Your task to perform on an android device: Open the calendar app, open the side menu, and click the "Day" option Image 0: 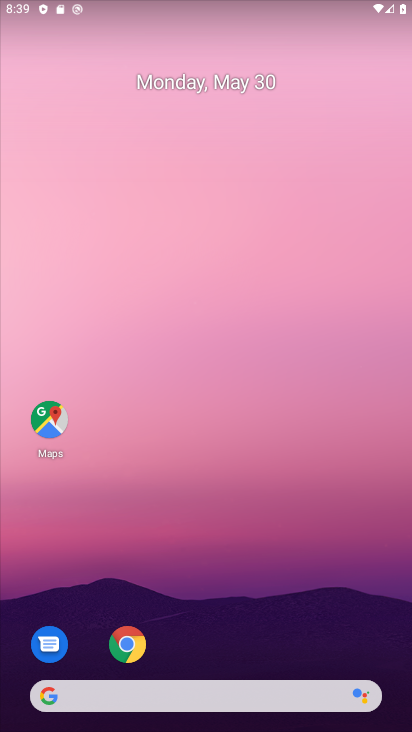
Step 0: drag from (180, 636) to (247, 190)
Your task to perform on an android device: Open the calendar app, open the side menu, and click the "Day" option Image 1: 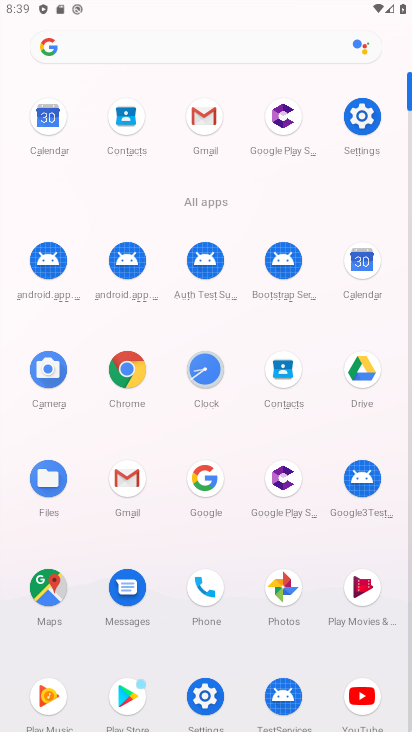
Step 1: click (388, 234)
Your task to perform on an android device: Open the calendar app, open the side menu, and click the "Day" option Image 2: 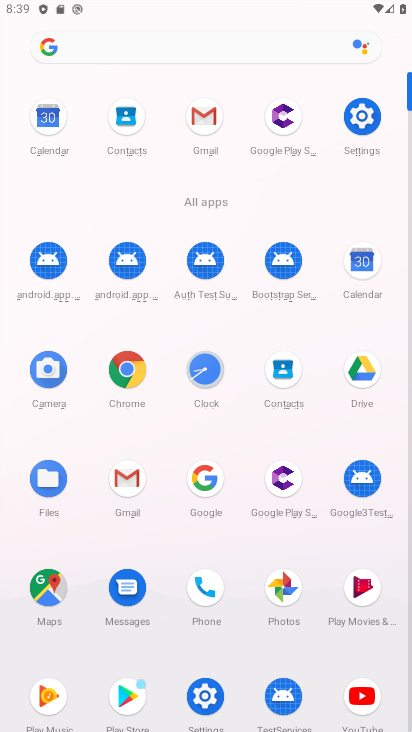
Step 2: click (378, 257)
Your task to perform on an android device: Open the calendar app, open the side menu, and click the "Day" option Image 3: 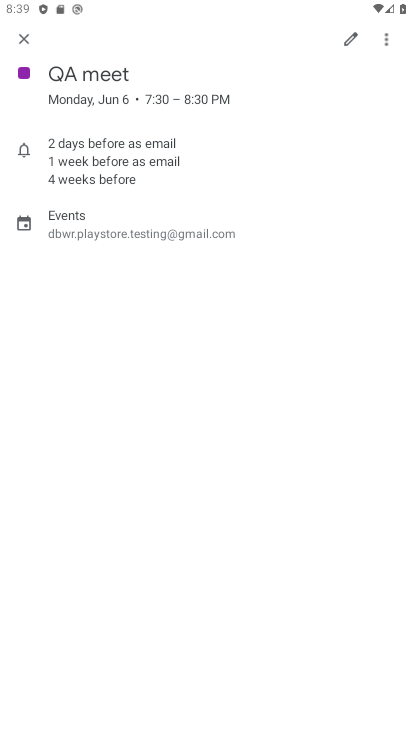
Step 3: click (26, 35)
Your task to perform on an android device: Open the calendar app, open the side menu, and click the "Day" option Image 4: 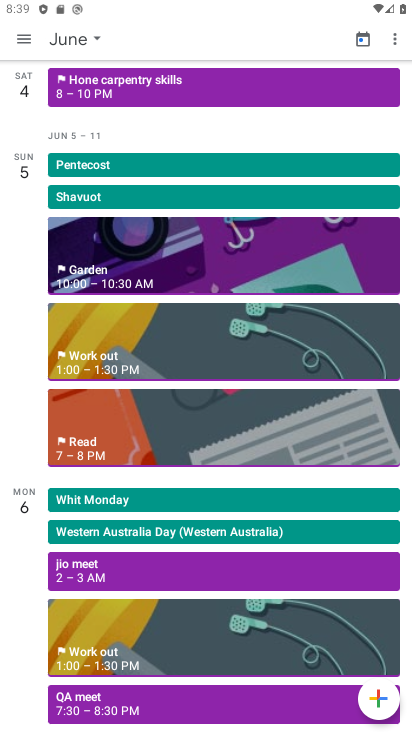
Step 4: click (18, 32)
Your task to perform on an android device: Open the calendar app, open the side menu, and click the "Day" option Image 5: 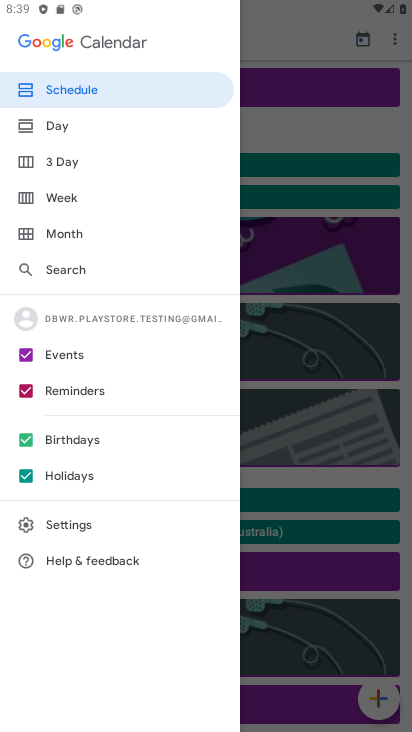
Step 5: click (59, 117)
Your task to perform on an android device: Open the calendar app, open the side menu, and click the "Day" option Image 6: 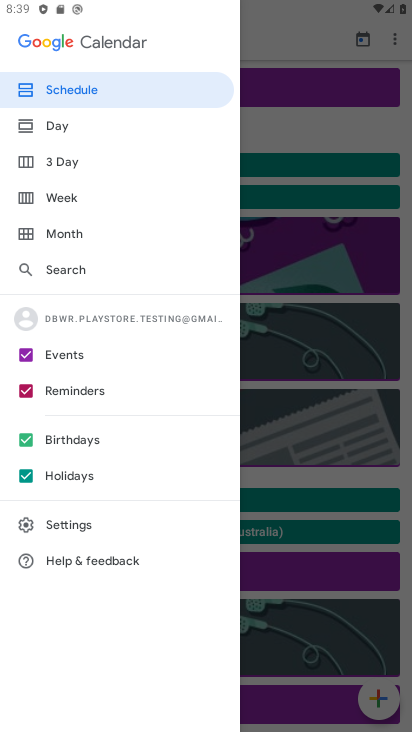
Step 6: click (63, 123)
Your task to perform on an android device: Open the calendar app, open the side menu, and click the "Day" option Image 7: 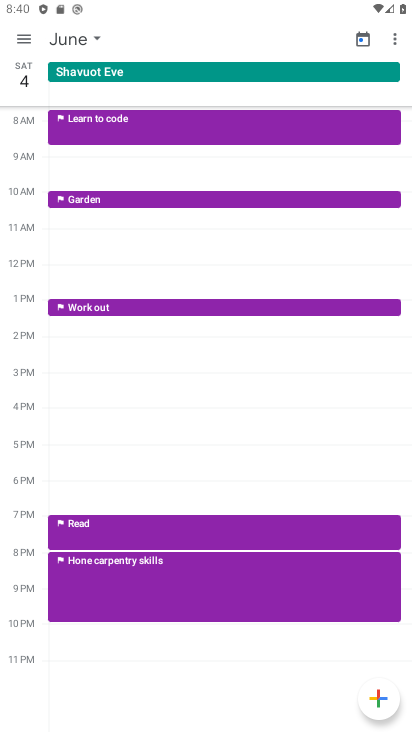
Step 7: task complete